Your task to perform on an android device: Is it going to rain this weekend? Image 0: 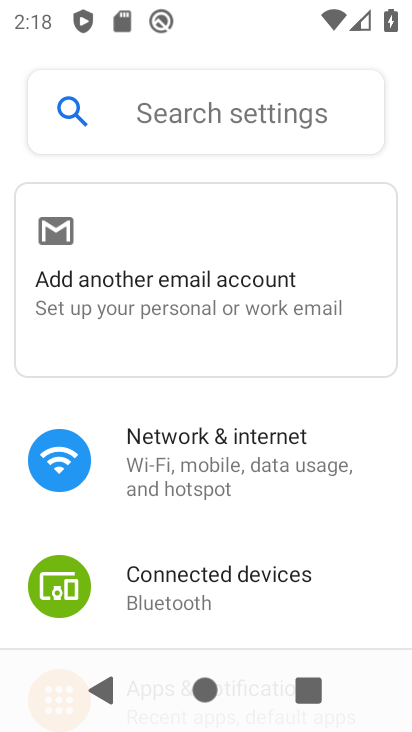
Step 0: press home button
Your task to perform on an android device: Is it going to rain this weekend? Image 1: 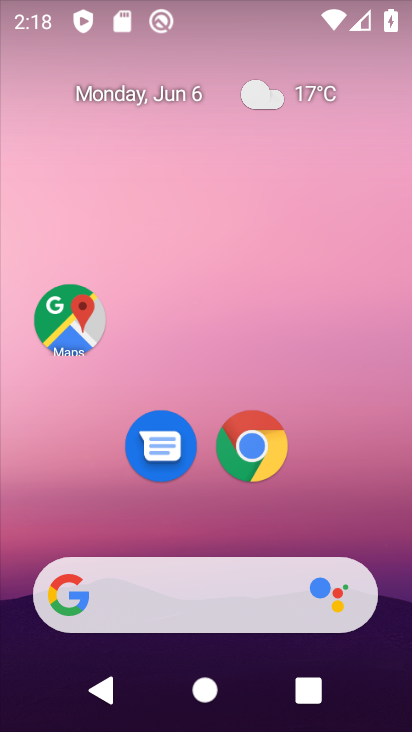
Step 1: drag from (185, 541) to (268, 68)
Your task to perform on an android device: Is it going to rain this weekend? Image 2: 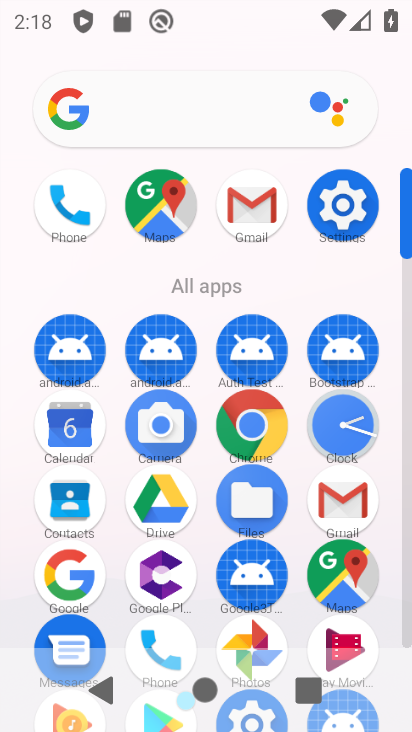
Step 2: click (58, 430)
Your task to perform on an android device: Is it going to rain this weekend? Image 3: 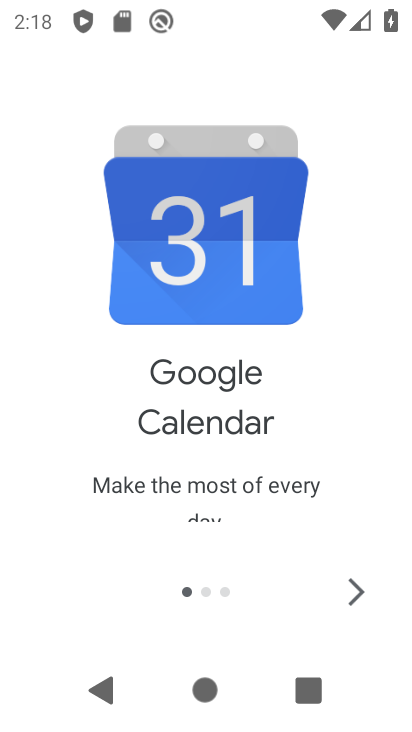
Step 3: click (369, 583)
Your task to perform on an android device: Is it going to rain this weekend? Image 4: 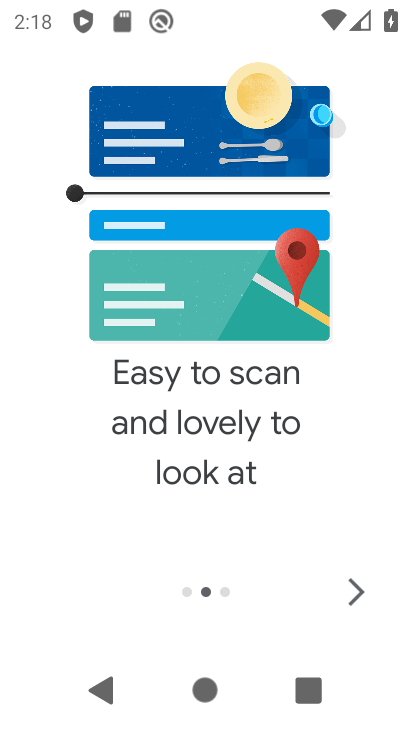
Step 4: click (366, 582)
Your task to perform on an android device: Is it going to rain this weekend? Image 5: 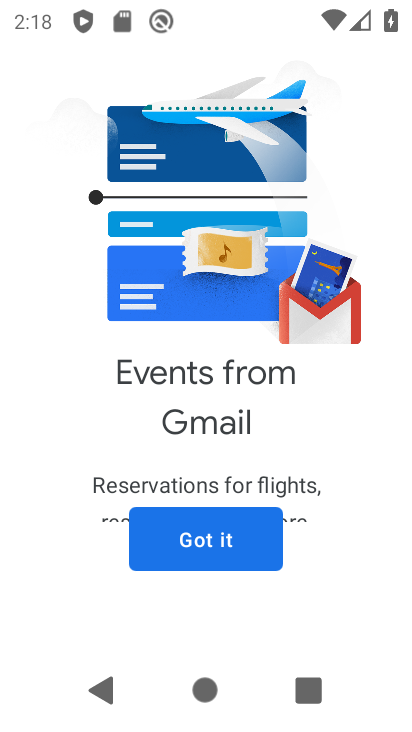
Step 5: click (187, 511)
Your task to perform on an android device: Is it going to rain this weekend? Image 6: 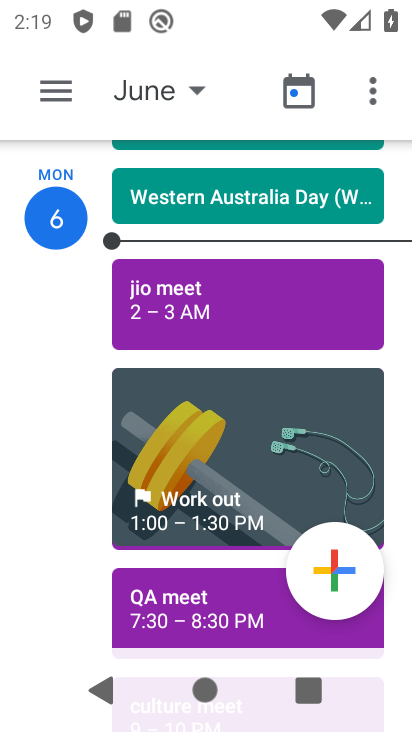
Step 6: press back button
Your task to perform on an android device: Is it going to rain this weekend? Image 7: 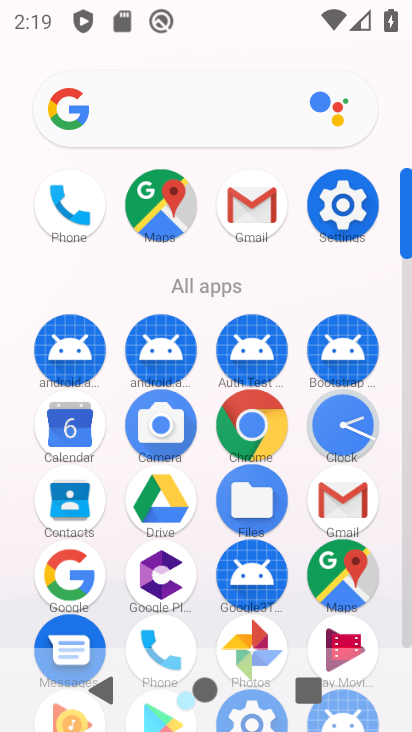
Step 7: press back button
Your task to perform on an android device: Is it going to rain this weekend? Image 8: 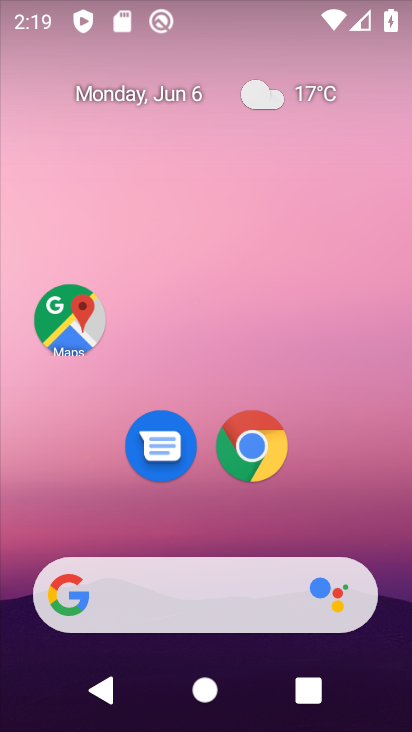
Step 8: click (257, 94)
Your task to perform on an android device: Is it going to rain this weekend? Image 9: 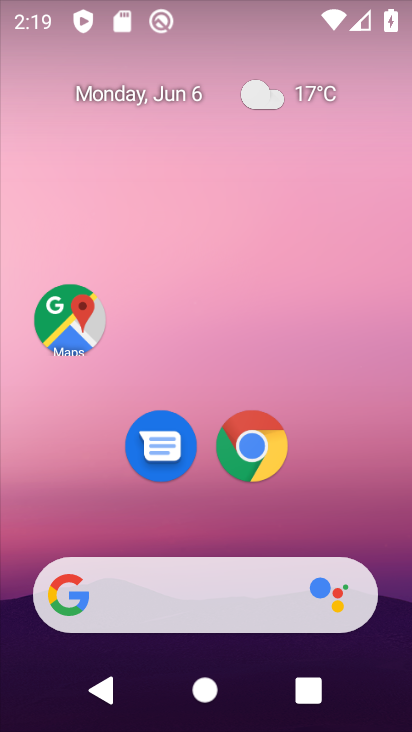
Step 9: click (257, 94)
Your task to perform on an android device: Is it going to rain this weekend? Image 10: 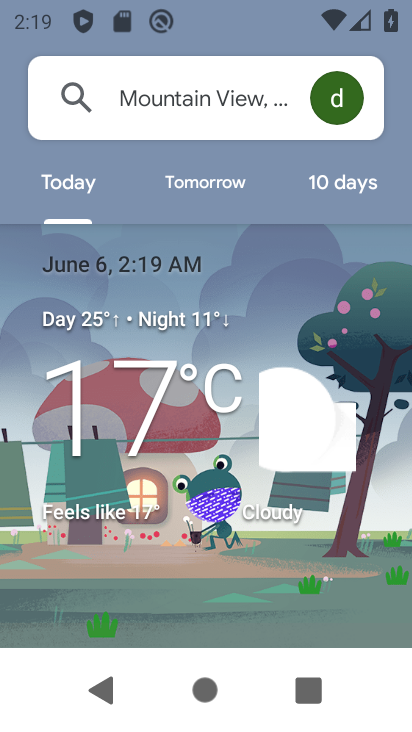
Step 10: click (335, 179)
Your task to perform on an android device: Is it going to rain this weekend? Image 11: 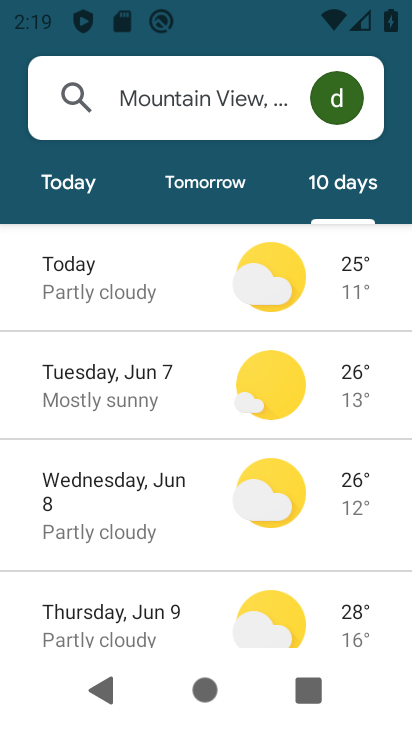
Step 11: task complete